Your task to perform on an android device: Open wifi settings Image 0: 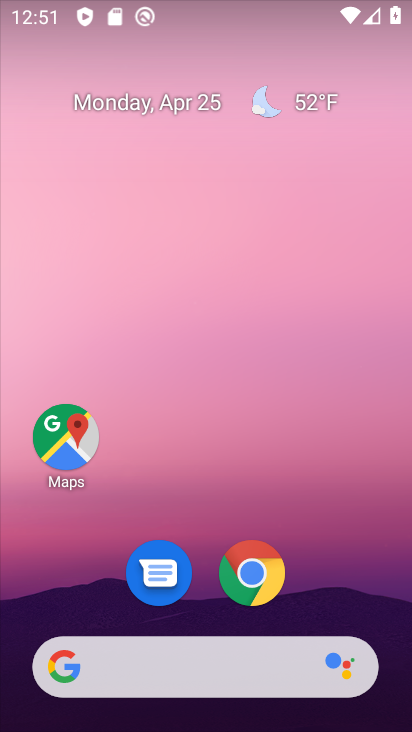
Step 0: drag from (325, 11) to (325, 577)
Your task to perform on an android device: Open wifi settings Image 1: 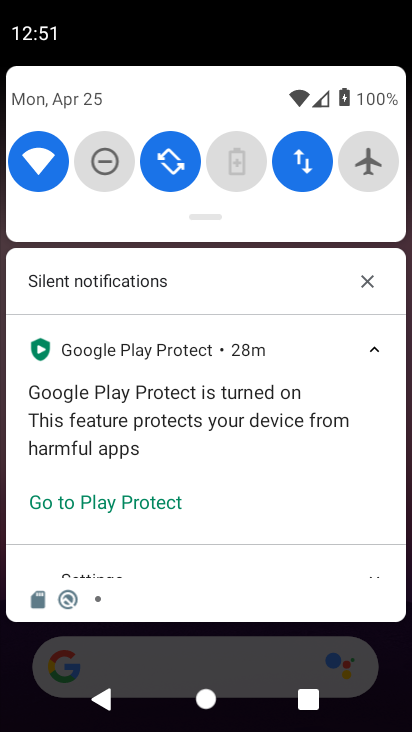
Step 1: click (32, 162)
Your task to perform on an android device: Open wifi settings Image 2: 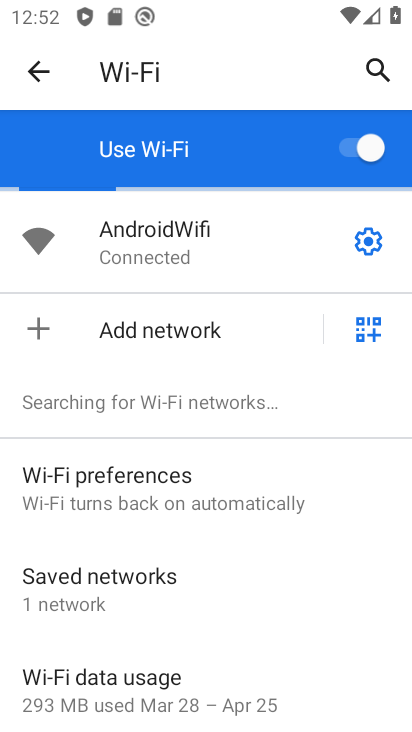
Step 2: task complete